Your task to perform on an android device: refresh tabs in the chrome app Image 0: 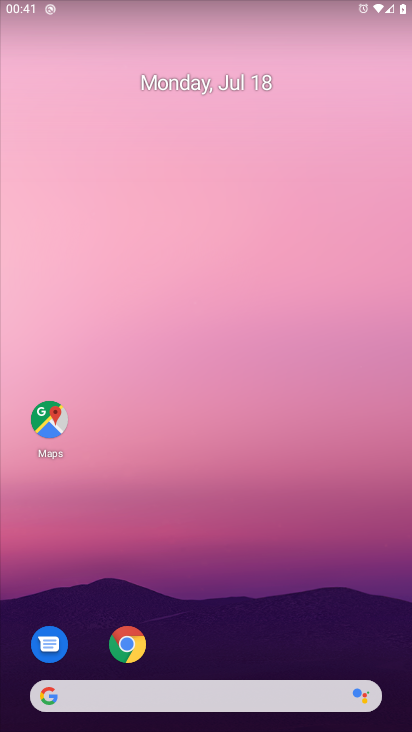
Step 0: press home button
Your task to perform on an android device: refresh tabs in the chrome app Image 1: 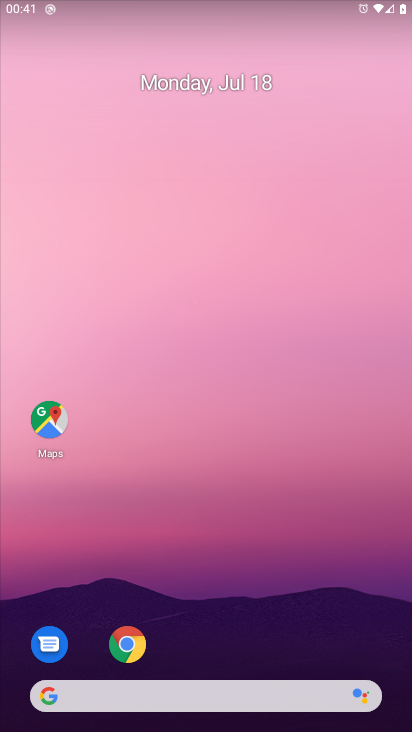
Step 1: click (133, 632)
Your task to perform on an android device: refresh tabs in the chrome app Image 2: 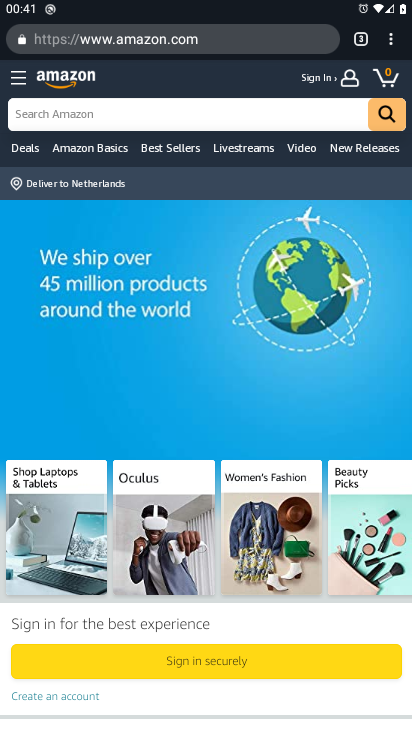
Step 2: click (386, 35)
Your task to perform on an android device: refresh tabs in the chrome app Image 3: 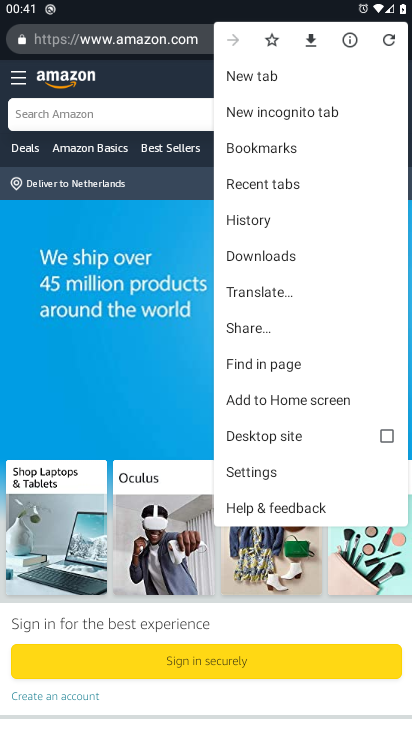
Step 3: click (386, 35)
Your task to perform on an android device: refresh tabs in the chrome app Image 4: 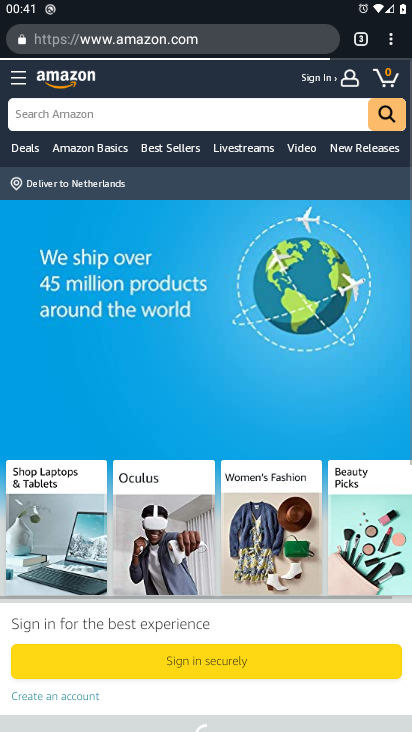
Step 4: click (387, 38)
Your task to perform on an android device: refresh tabs in the chrome app Image 5: 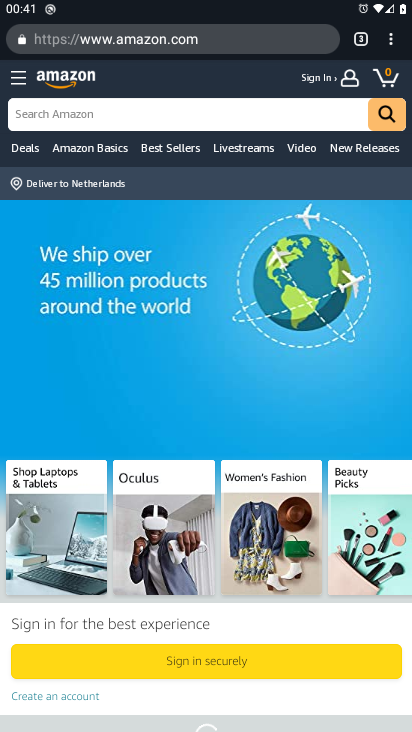
Step 5: click (386, 37)
Your task to perform on an android device: refresh tabs in the chrome app Image 6: 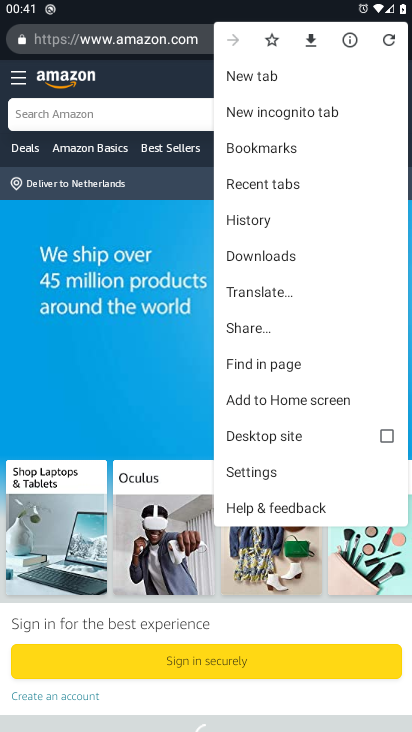
Step 6: click (388, 40)
Your task to perform on an android device: refresh tabs in the chrome app Image 7: 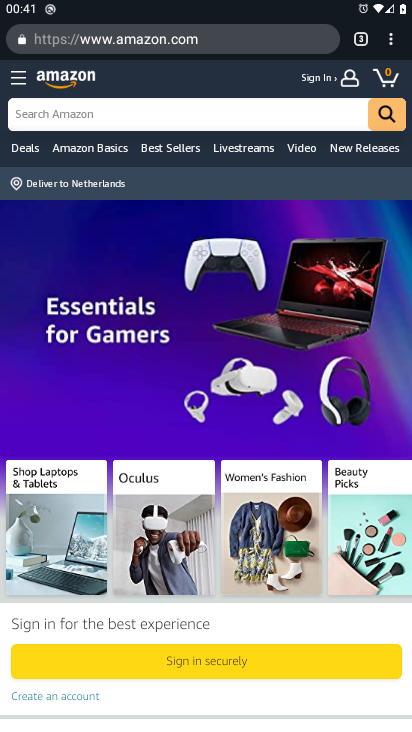
Step 7: task complete